Your task to perform on an android device: empty trash in google photos Image 0: 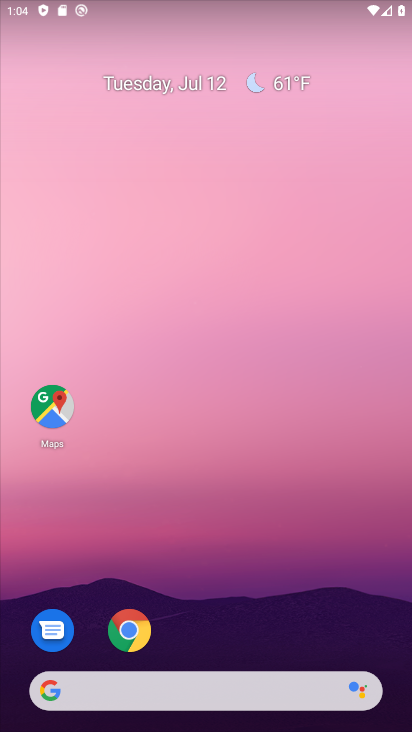
Step 0: drag from (245, 647) to (243, 430)
Your task to perform on an android device: empty trash in google photos Image 1: 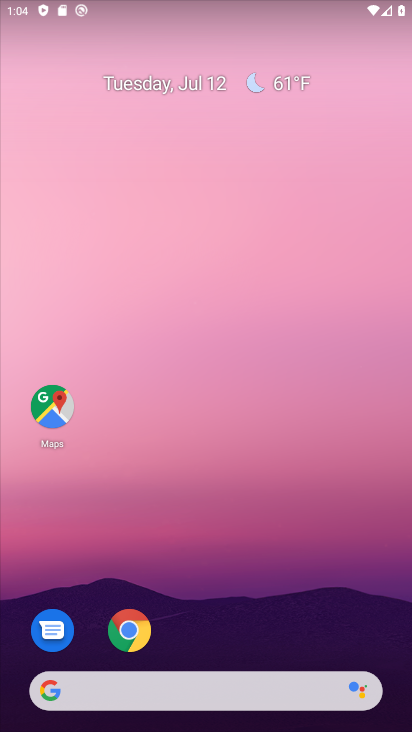
Step 1: drag from (199, 644) to (146, 199)
Your task to perform on an android device: empty trash in google photos Image 2: 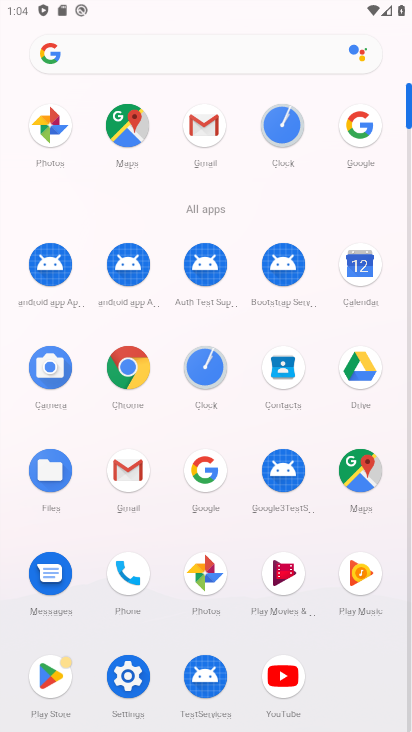
Step 2: click (54, 138)
Your task to perform on an android device: empty trash in google photos Image 3: 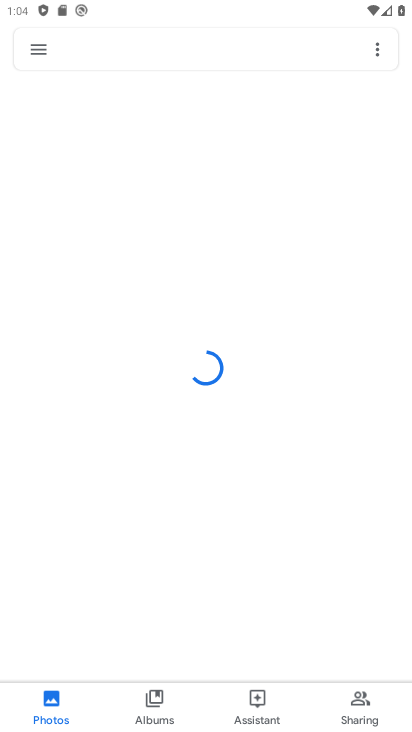
Step 3: click (34, 46)
Your task to perform on an android device: empty trash in google photos Image 4: 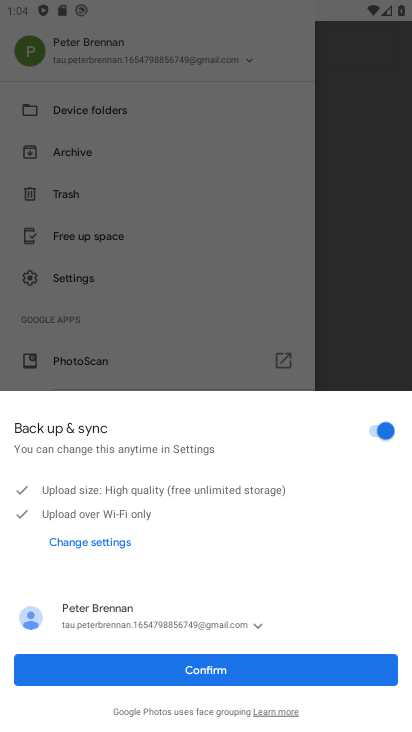
Step 4: click (177, 668)
Your task to perform on an android device: empty trash in google photos Image 5: 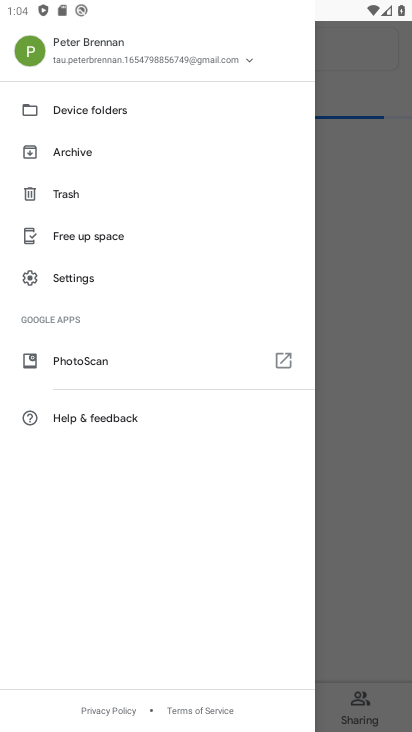
Step 5: click (92, 202)
Your task to perform on an android device: empty trash in google photos Image 6: 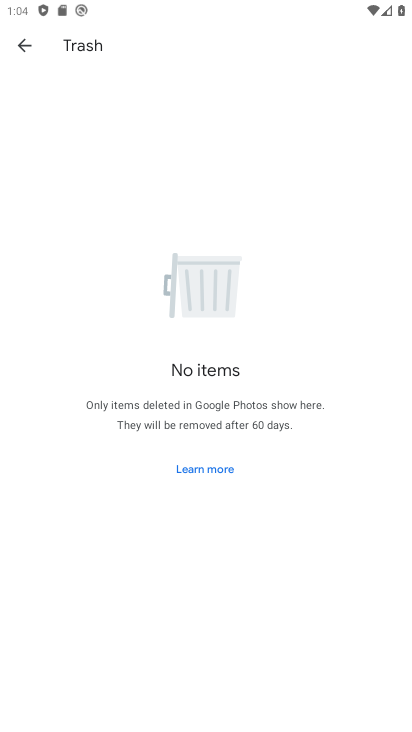
Step 6: task complete